Your task to perform on an android device: Open sound settings Image 0: 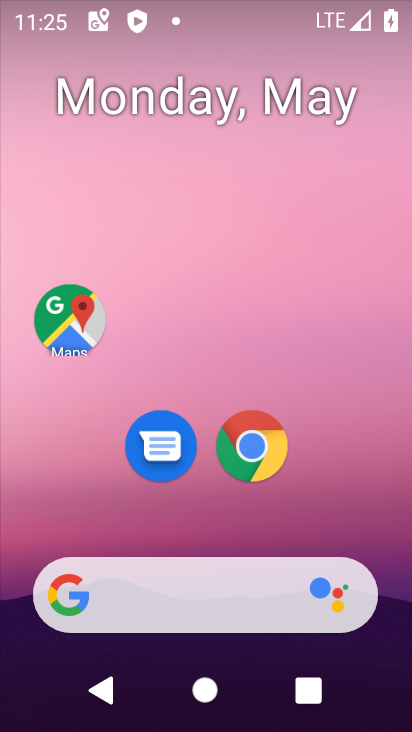
Step 0: drag from (330, 498) to (312, 121)
Your task to perform on an android device: Open sound settings Image 1: 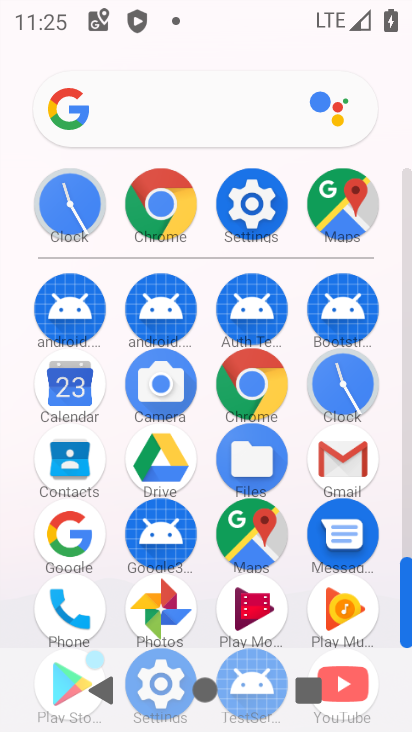
Step 1: click (235, 189)
Your task to perform on an android device: Open sound settings Image 2: 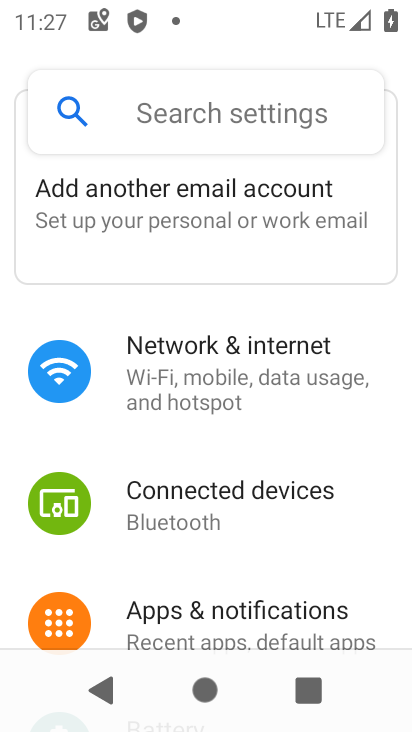
Step 2: drag from (229, 632) to (253, 275)
Your task to perform on an android device: Open sound settings Image 3: 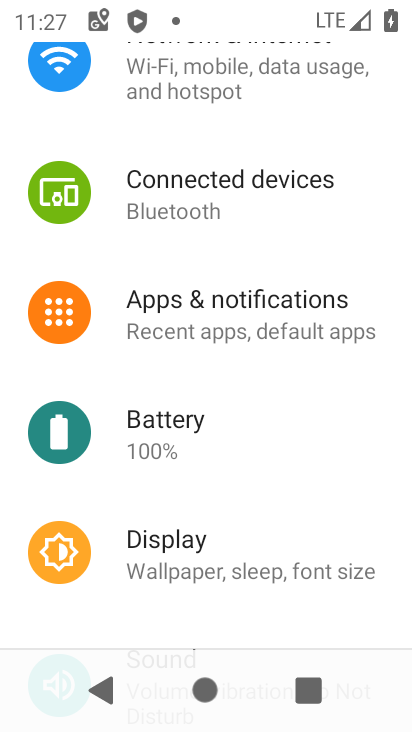
Step 3: drag from (200, 539) to (162, 156)
Your task to perform on an android device: Open sound settings Image 4: 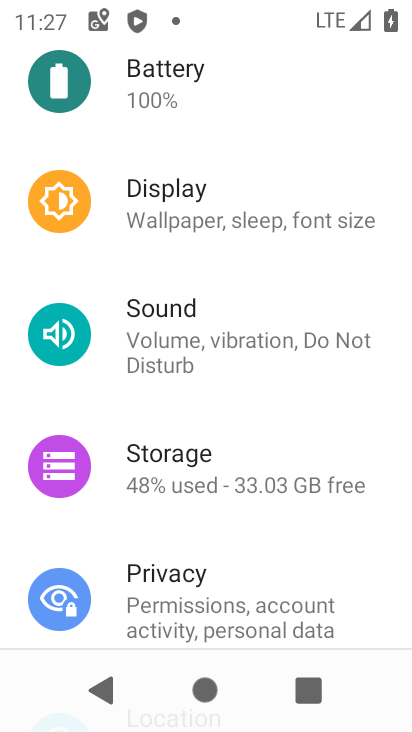
Step 4: click (166, 329)
Your task to perform on an android device: Open sound settings Image 5: 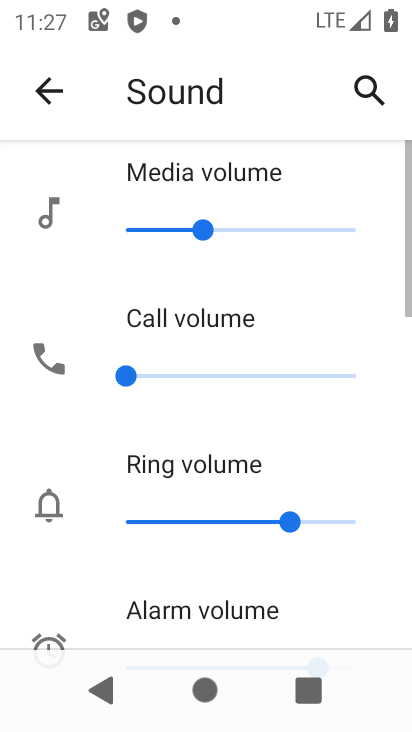
Step 5: task complete